Your task to perform on an android device: View the shopping cart on walmart.com. Search for "razer thresher" on walmart.com, select the first entry, add it to the cart, then select checkout. Image 0: 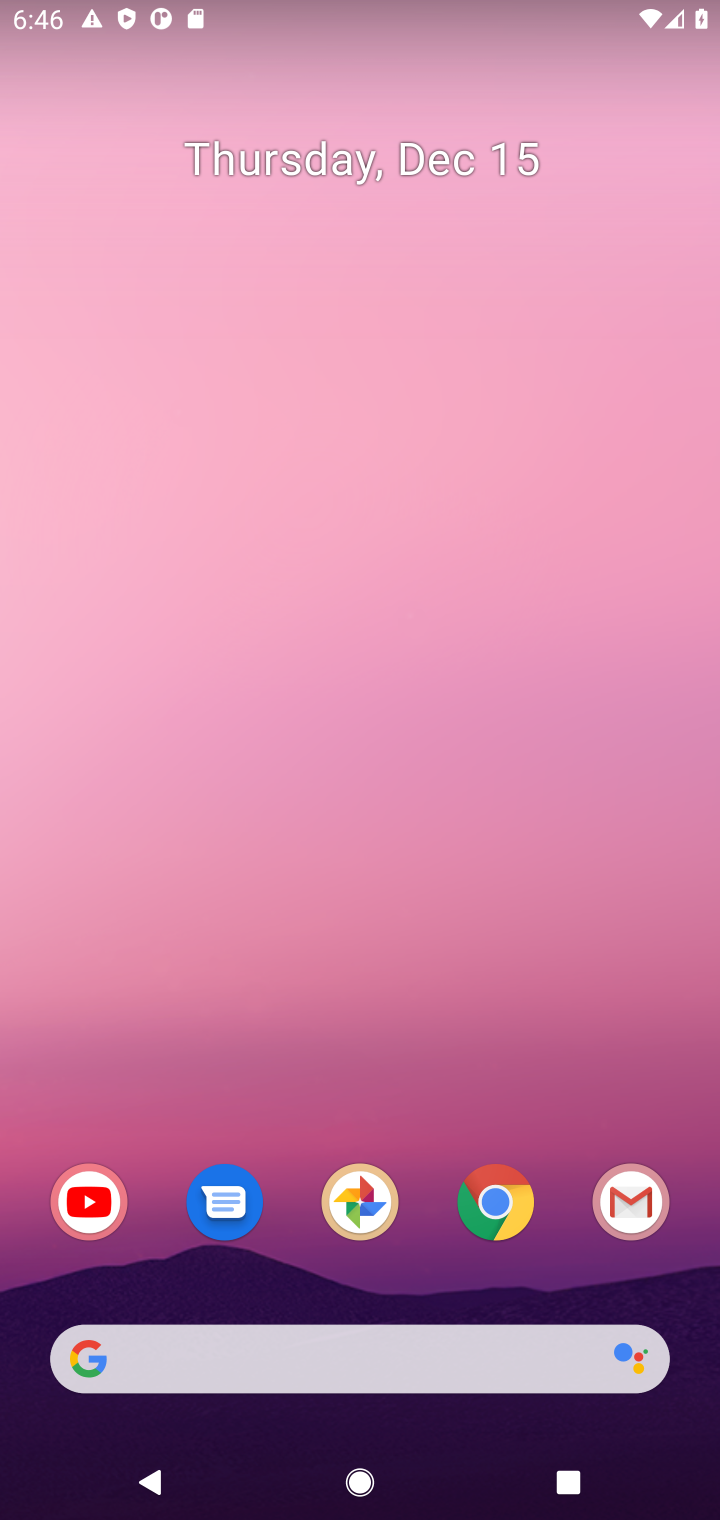
Step 0: click (499, 1216)
Your task to perform on an android device: View the shopping cart on walmart.com. Search for "razer thresher" on walmart.com, select the first entry, add it to the cart, then select checkout. Image 1: 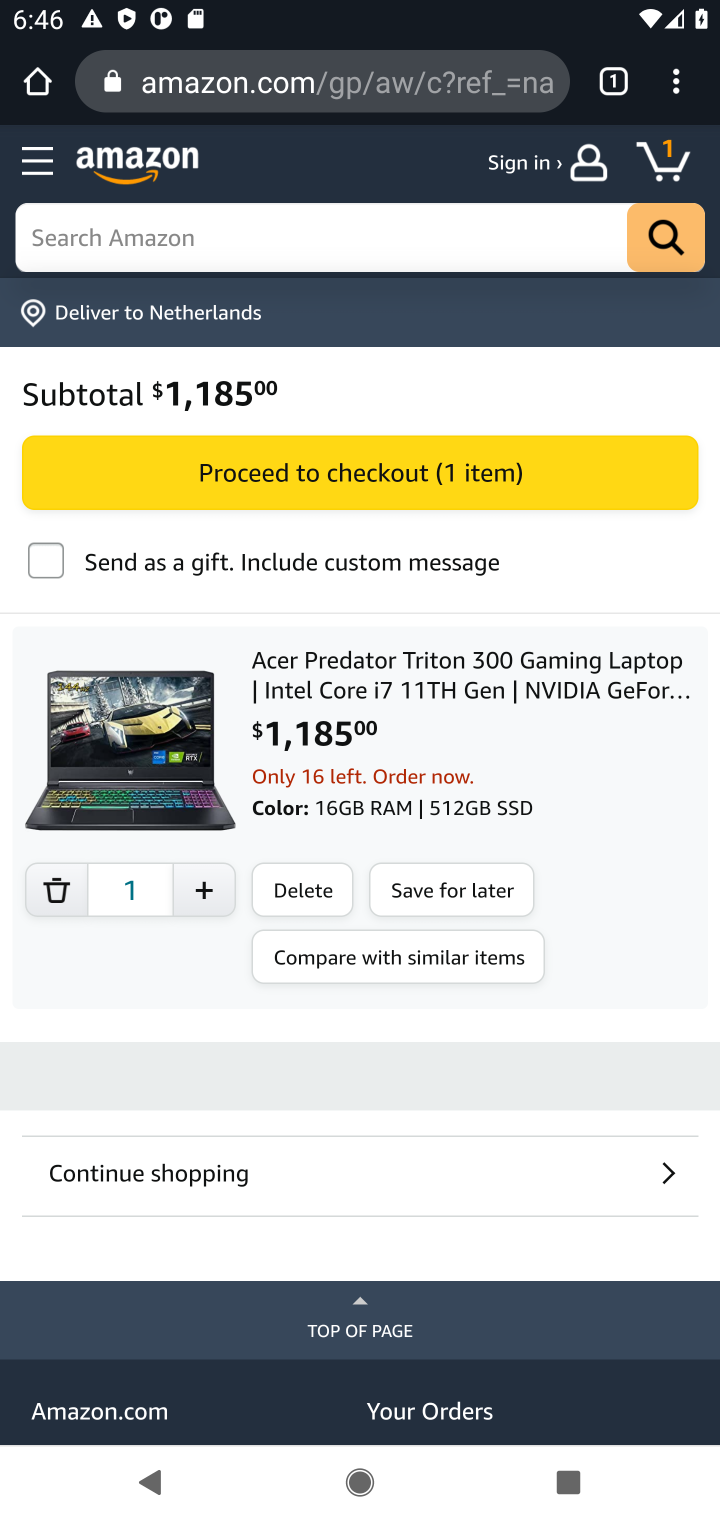
Step 1: click (213, 78)
Your task to perform on an android device: View the shopping cart on walmart.com. Search for "razer thresher" on walmart.com, select the first entry, add it to the cart, then select checkout. Image 2: 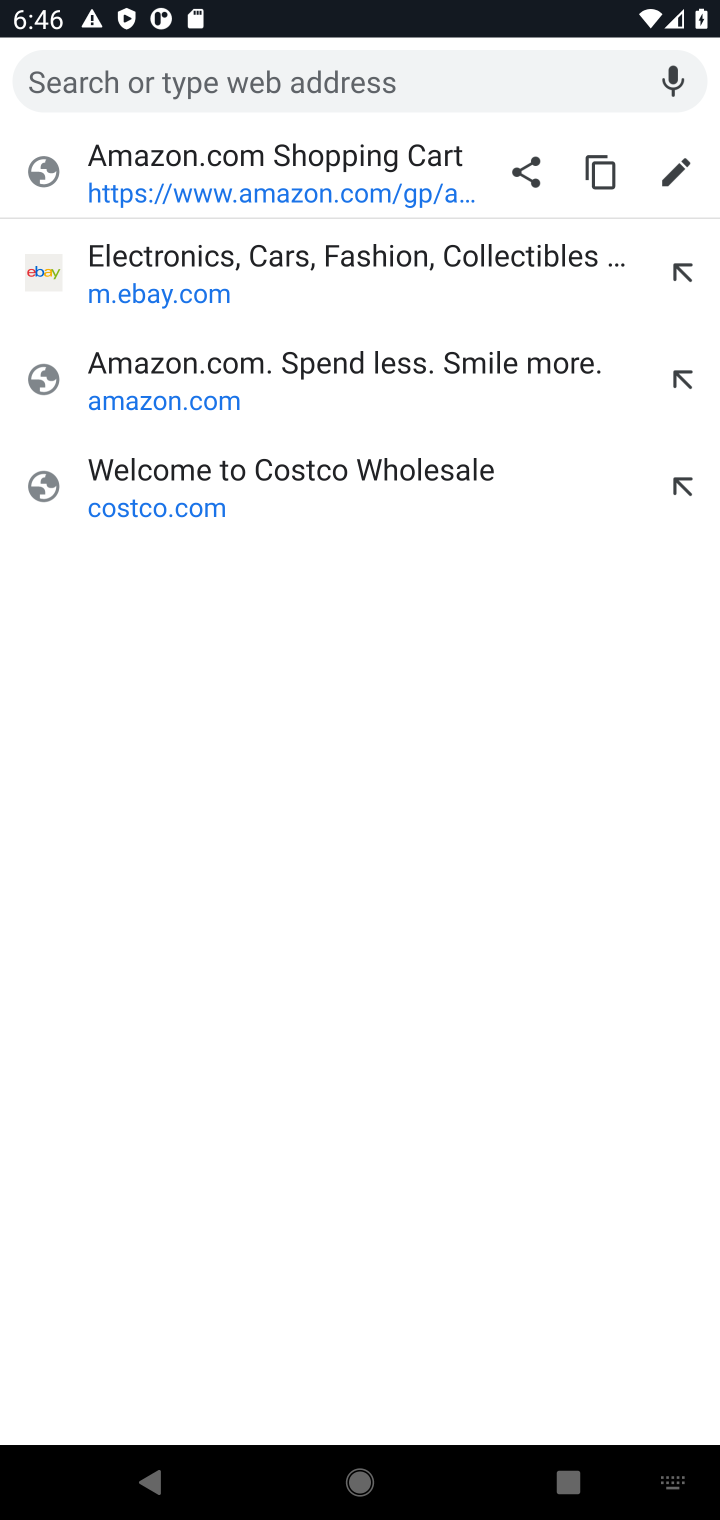
Step 2: type "walmart.com"
Your task to perform on an android device: View the shopping cart on walmart.com. Search for "razer thresher" on walmart.com, select the first entry, add it to the cart, then select checkout. Image 3: 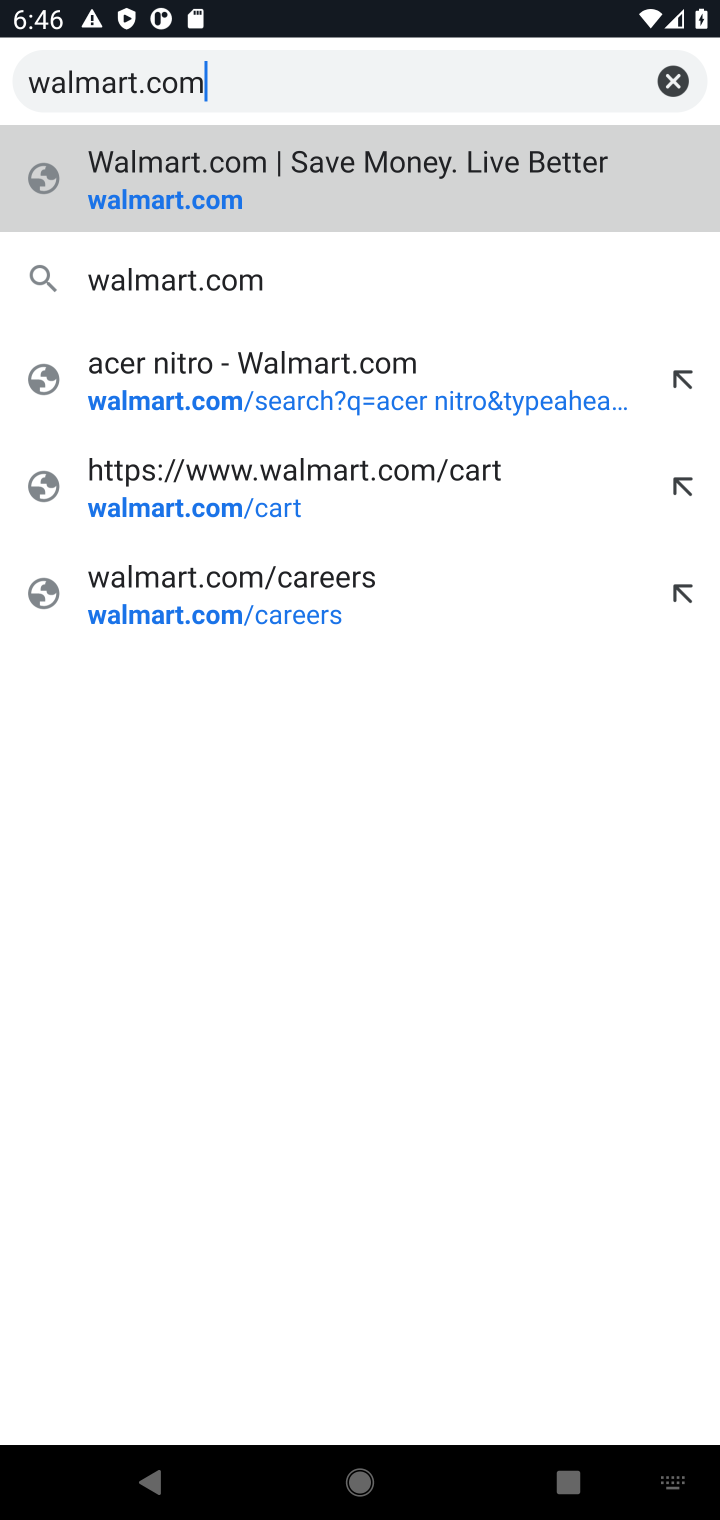
Step 3: click (135, 206)
Your task to perform on an android device: View the shopping cart on walmart.com. Search for "razer thresher" on walmart.com, select the first entry, add it to the cart, then select checkout. Image 4: 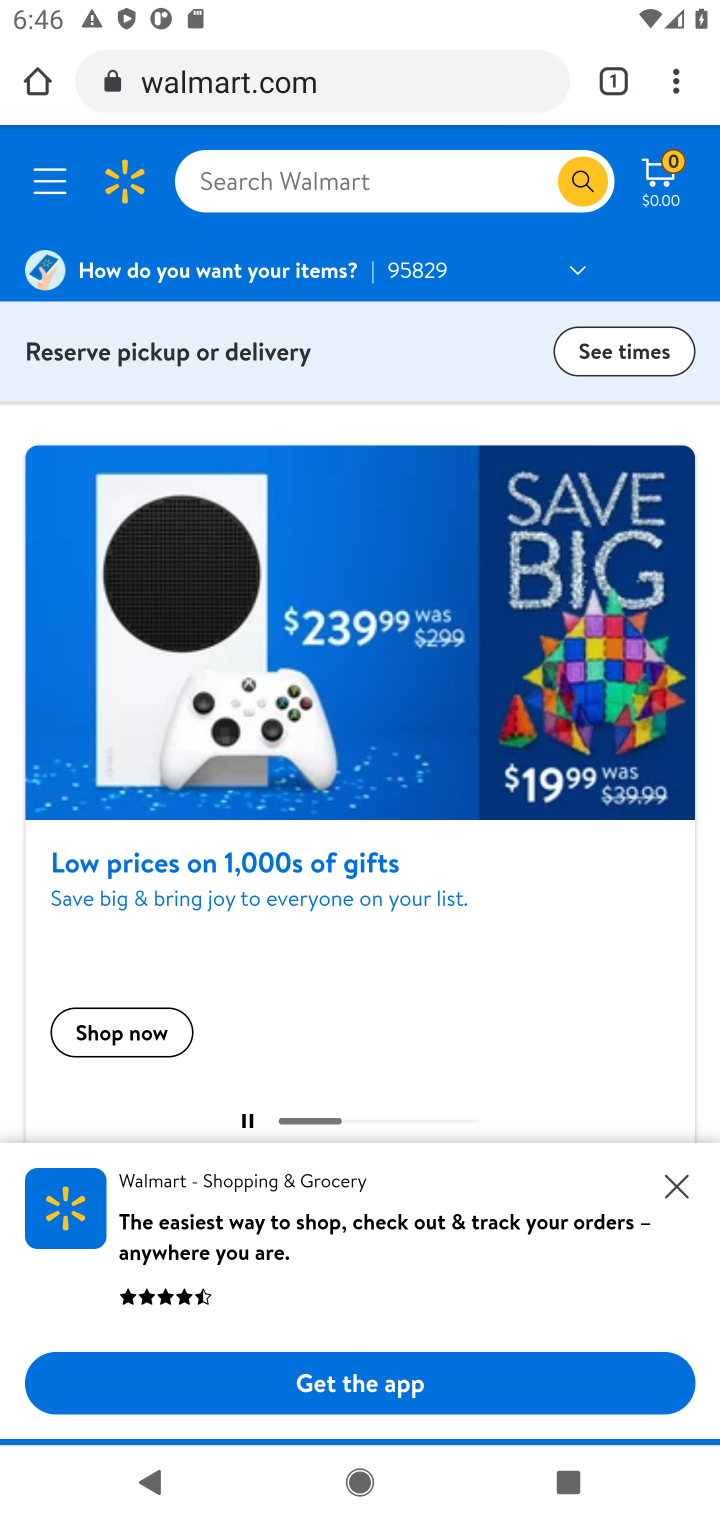
Step 4: click (661, 181)
Your task to perform on an android device: View the shopping cart on walmart.com. Search for "razer thresher" on walmart.com, select the first entry, add it to the cart, then select checkout. Image 5: 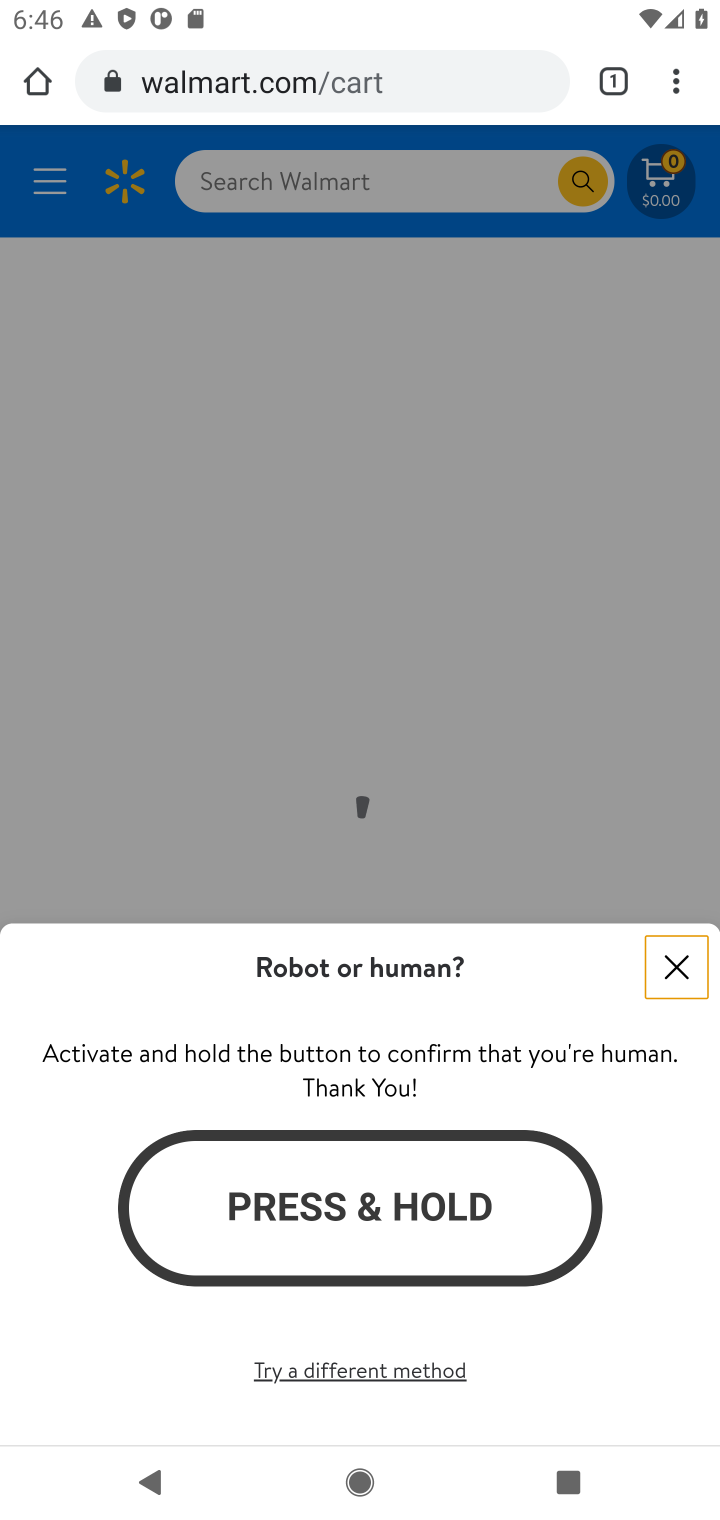
Step 5: click (351, 1228)
Your task to perform on an android device: View the shopping cart on walmart.com. Search for "razer thresher" on walmart.com, select the first entry, add it to the cart, then select checkout. Image 6: 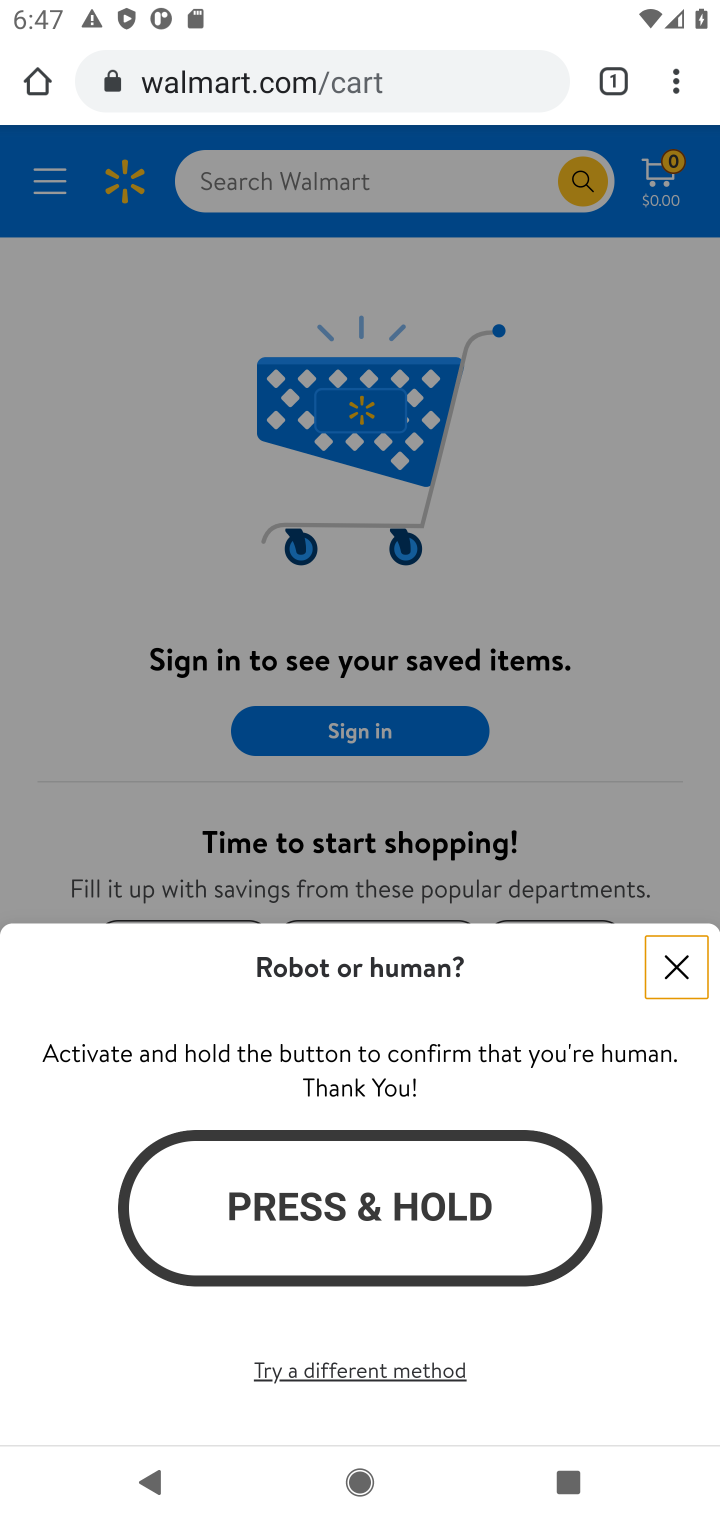
Step 6: click (675, 965)
Your task to perform on an android device: View the shopping cart on walmart.com. Search for "razer thresher" on walmart.com, select the first entry, add it to the cart, then select checkout. Image 7: 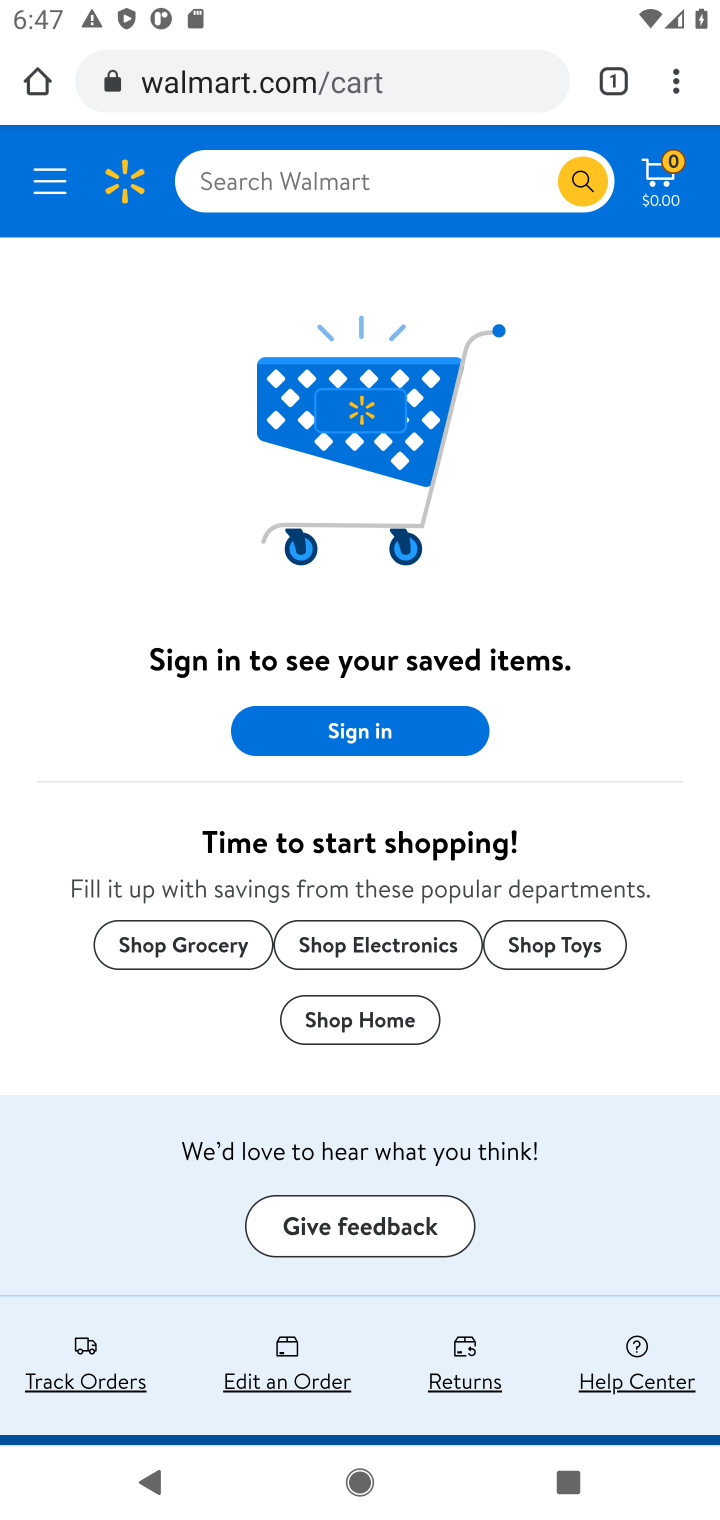
Step 7: click (256, 186)
Your task to perform on an android device: View the shopping cart on walmart.com. Search for "razer thresher" on walmart.com, select the first entry, add it to the cart, then select checkout. Image 8: 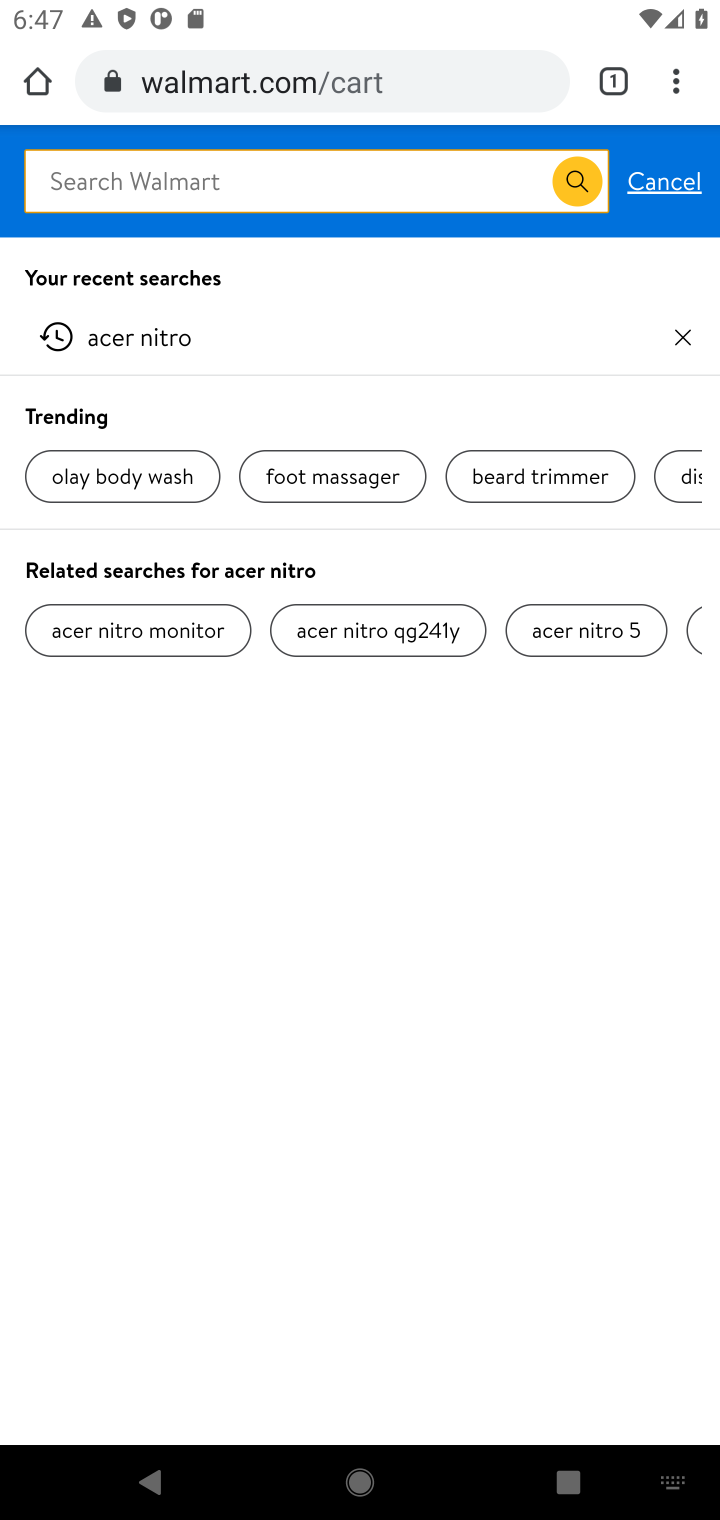
Step 8: type "razer thresher"
Your task to perform on an android device: View the shopping cart on walmart.com. Search for "razer thresher" on walmart.com, select the first entry, add it to the cart, then select checkout. Image 9: 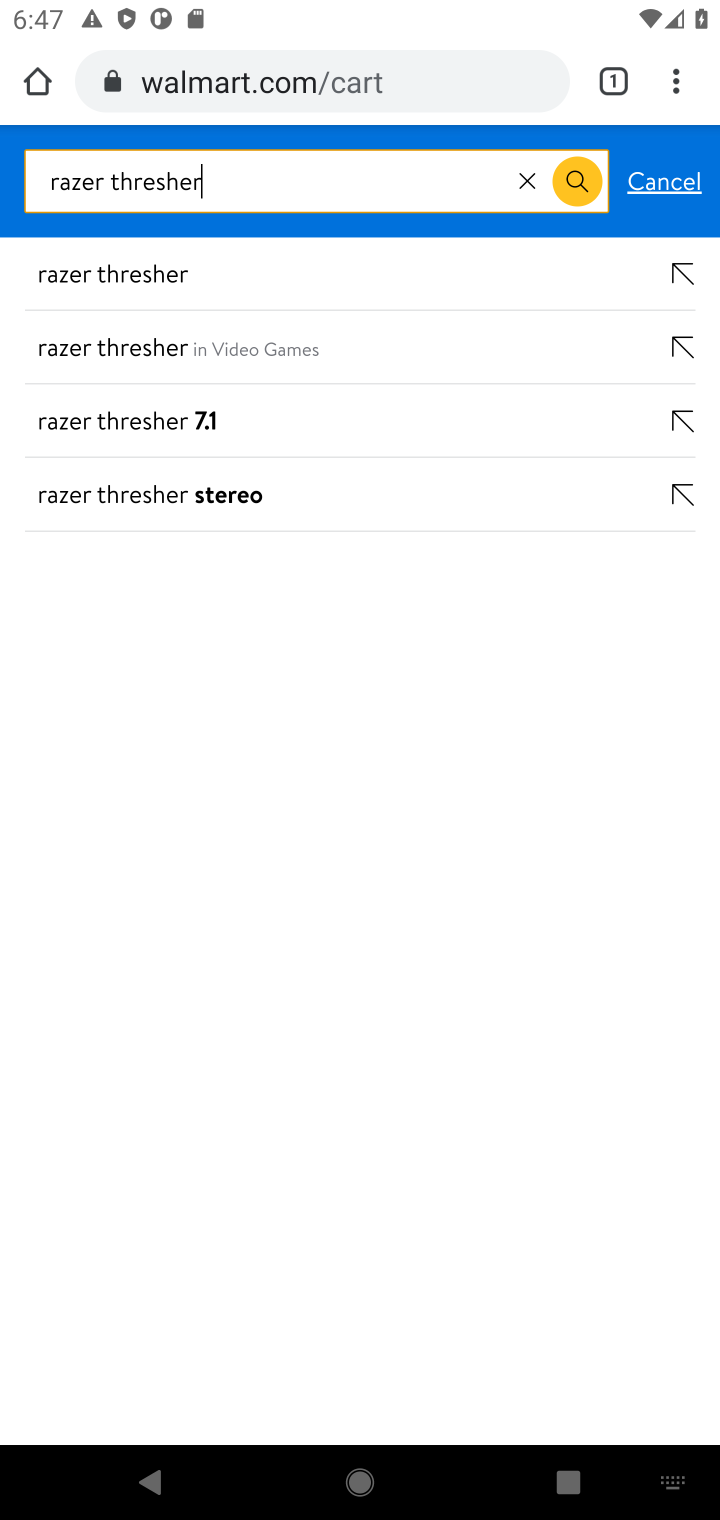
Step 9: click (106, 277)
Your task to perform on an android device: View the shopping cart on walmart.com. Search for "razer thresher" on walmart.com, select the first entry, add it to the cart, then select checkout. Image 10: 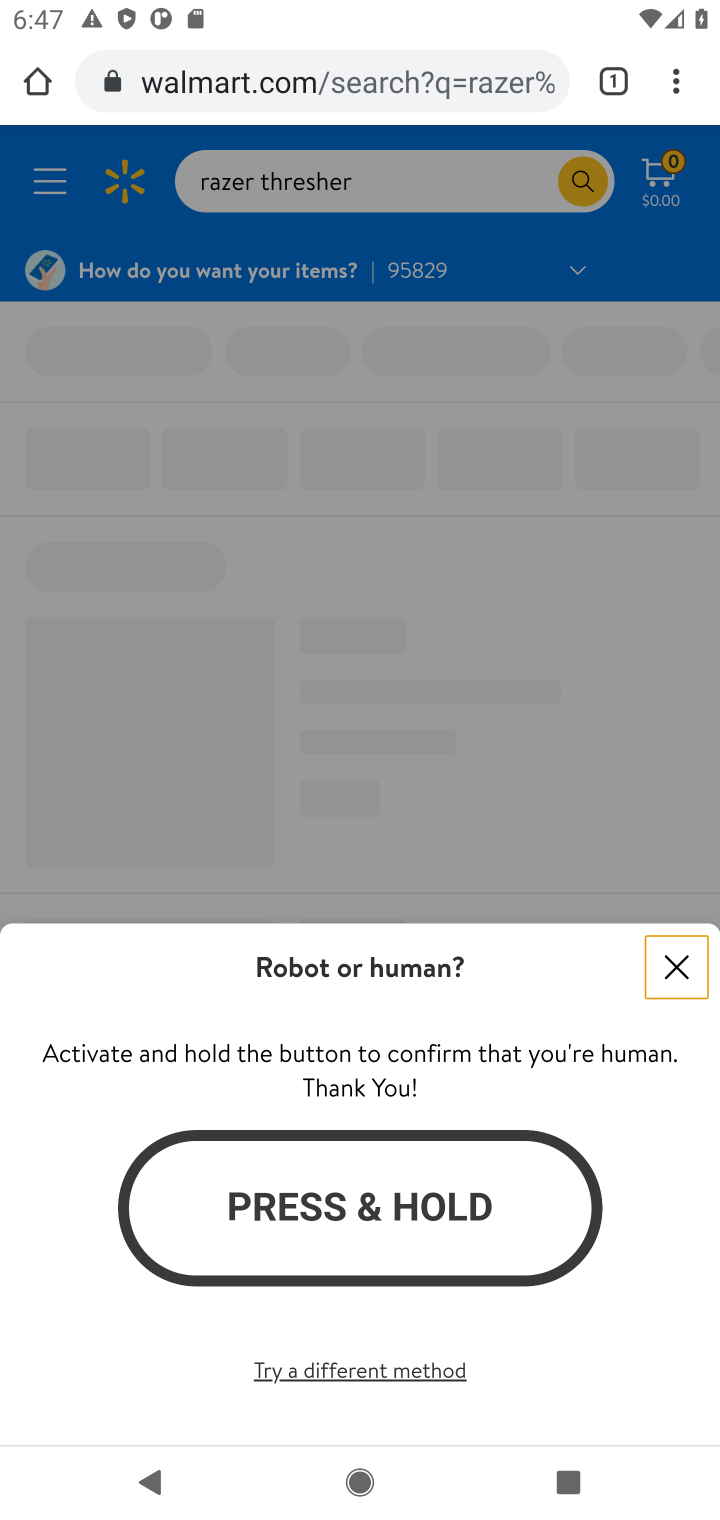
Step 10: click (316, 1179)
Your task to perform on an android device: View the shopping cart on walmart.com. Search for "razer thresher" on walmart.com, select the first entry, add it to the cart, then select checkout. Image 11: 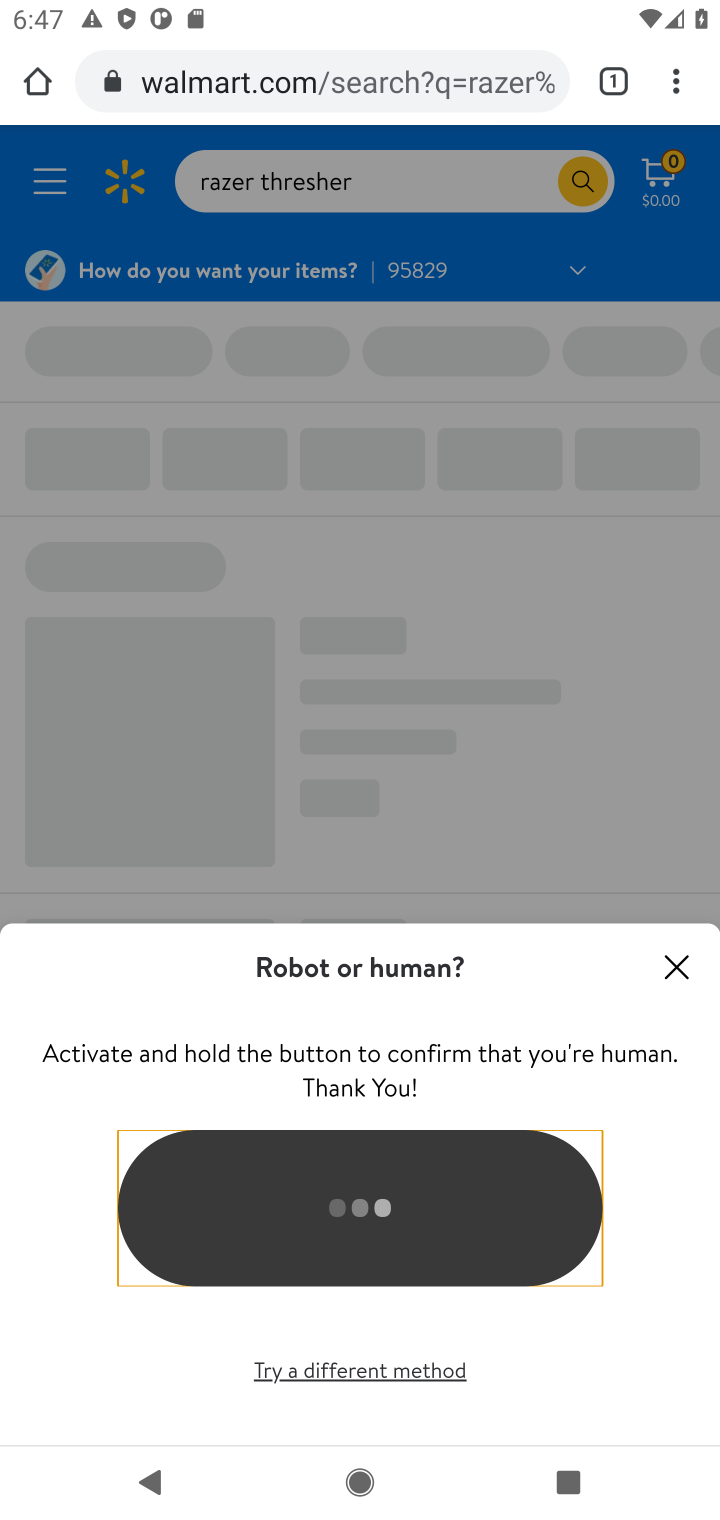
Step 11: click (592, 180)
Your task to perform on an android device: View the shopping cart on walmart.com. Search for "razer thresher" on walmart.com, select the first entry, add it to the cart, then select checkout. Image 12: 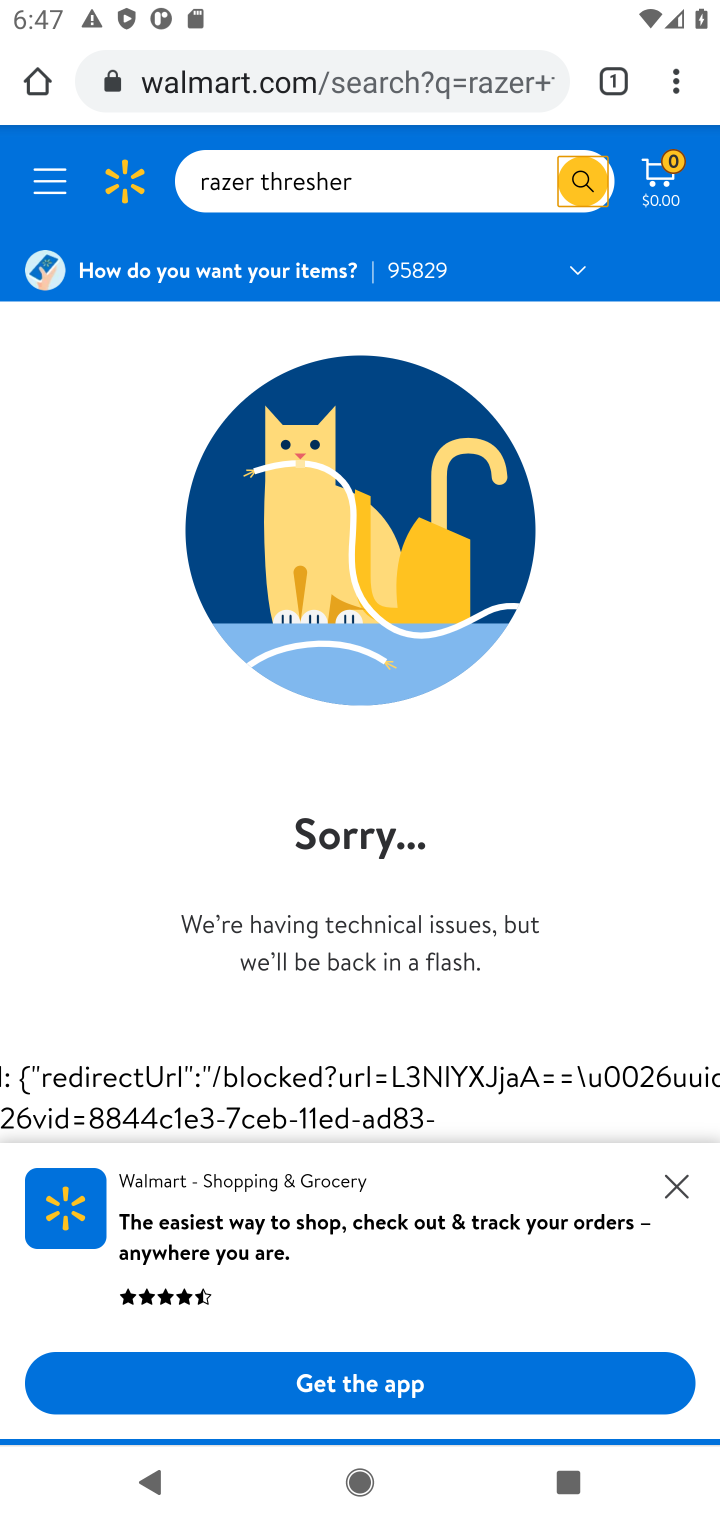
Step 12: task complete